Your task to perform on an android device: Search for sushi restaurants on Maps Image 0: 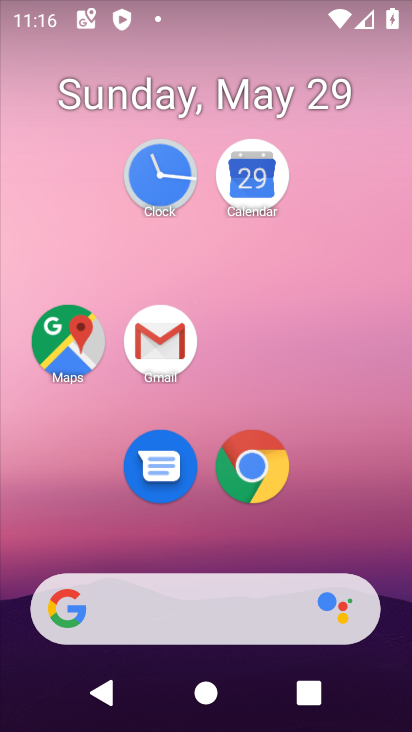
Step 0: click (68, 338)
Your task to perform on an android device: Search for sushi restaurants on Maps Image 1: 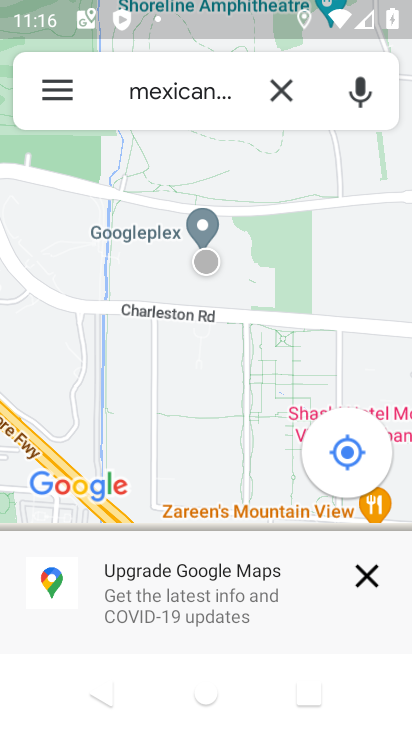
Step 1: click (298, 92)
Your task to perform on an android device: Search for sushi restaurants on Maps Image 2: 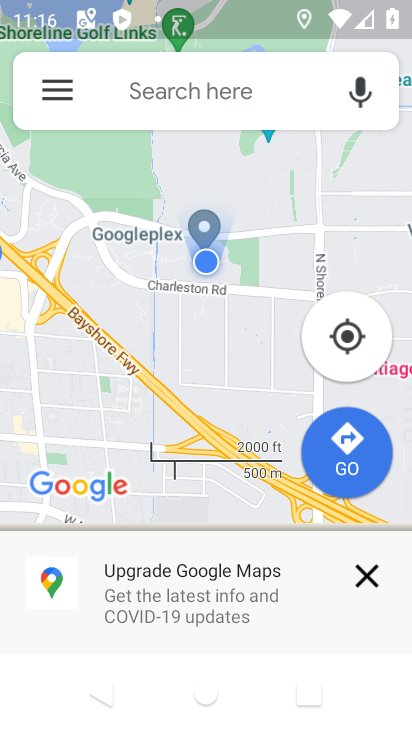
Step 2: click (284, 94)
Your task to perform on an android device: Search for sushi restaurants on Maps Image 3: 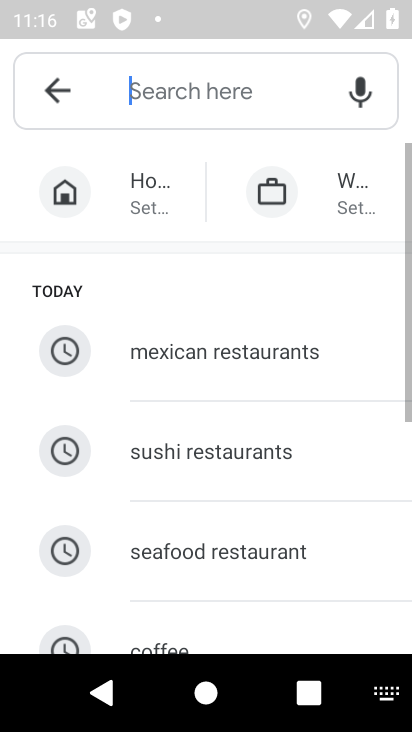
Step 3: click (235, 473)
Your task to perform on an android device: Search for sushi restaurants on Maps Image 4: 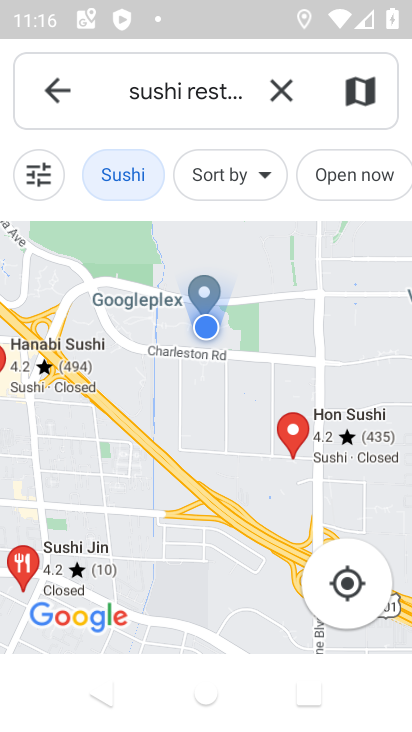
Step 4: task complete